Your task to perform on an android device: install app "Google Duo" Image 0: 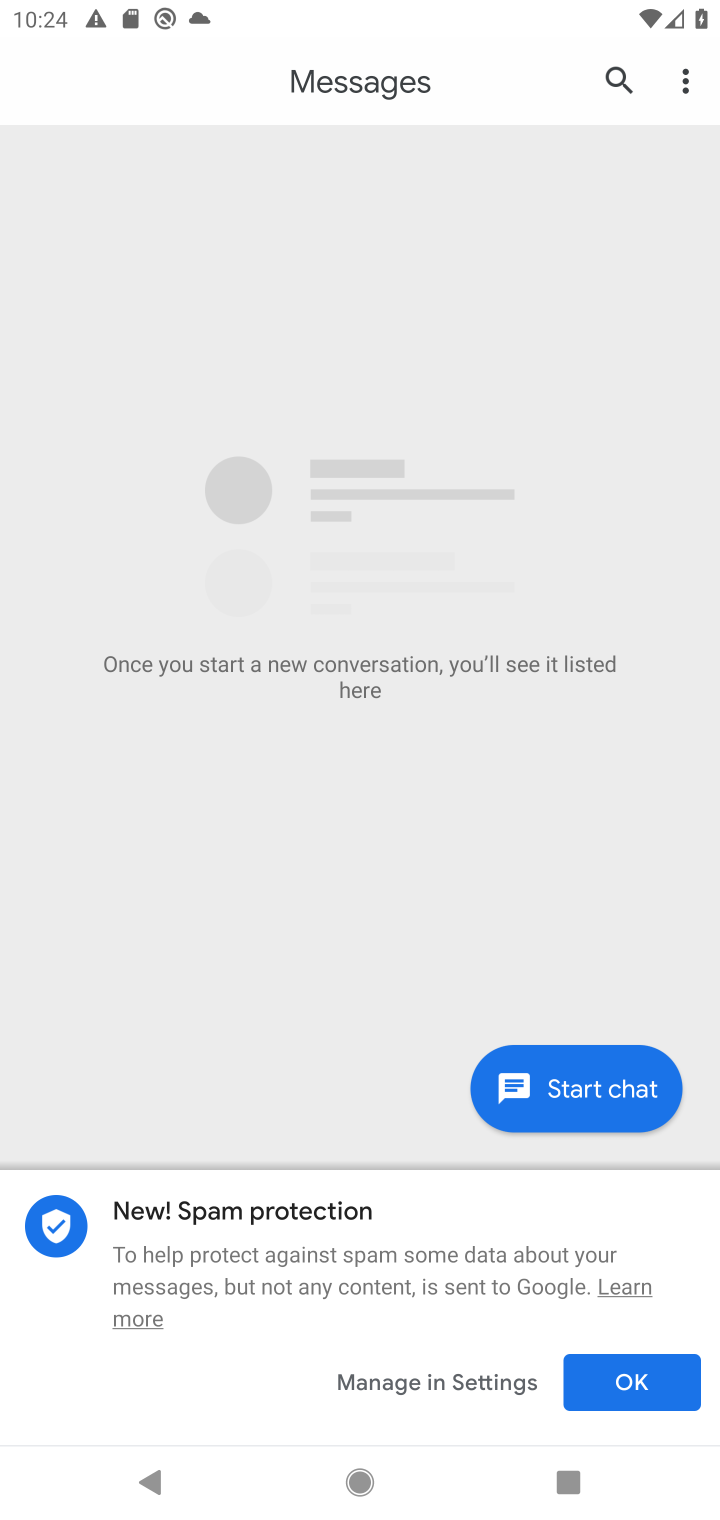
Step 0: press home button
Your task to perform on an android device: install app "Google Duo" Image 1: 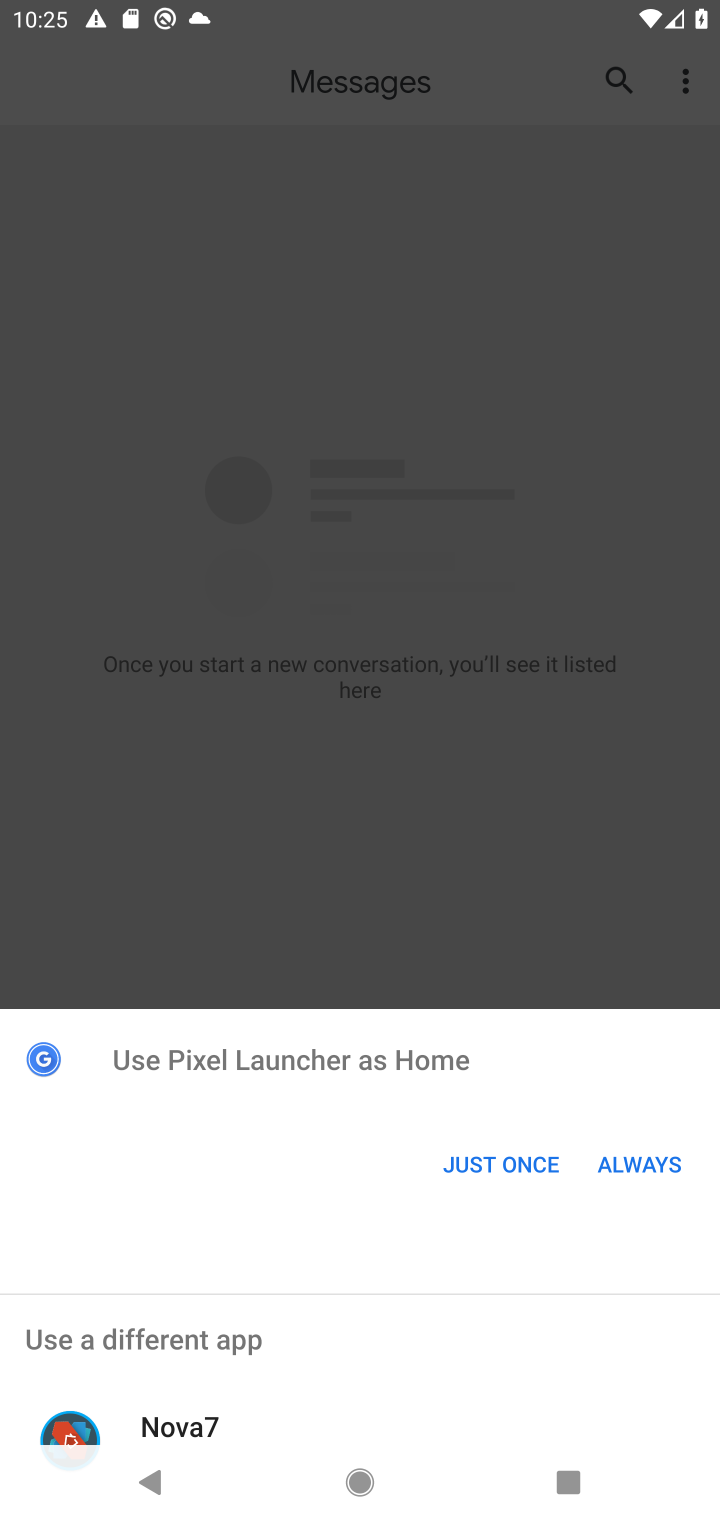
Step 1: press home button
Your task to perform on an android device: install app "Google Duo" Image 2: 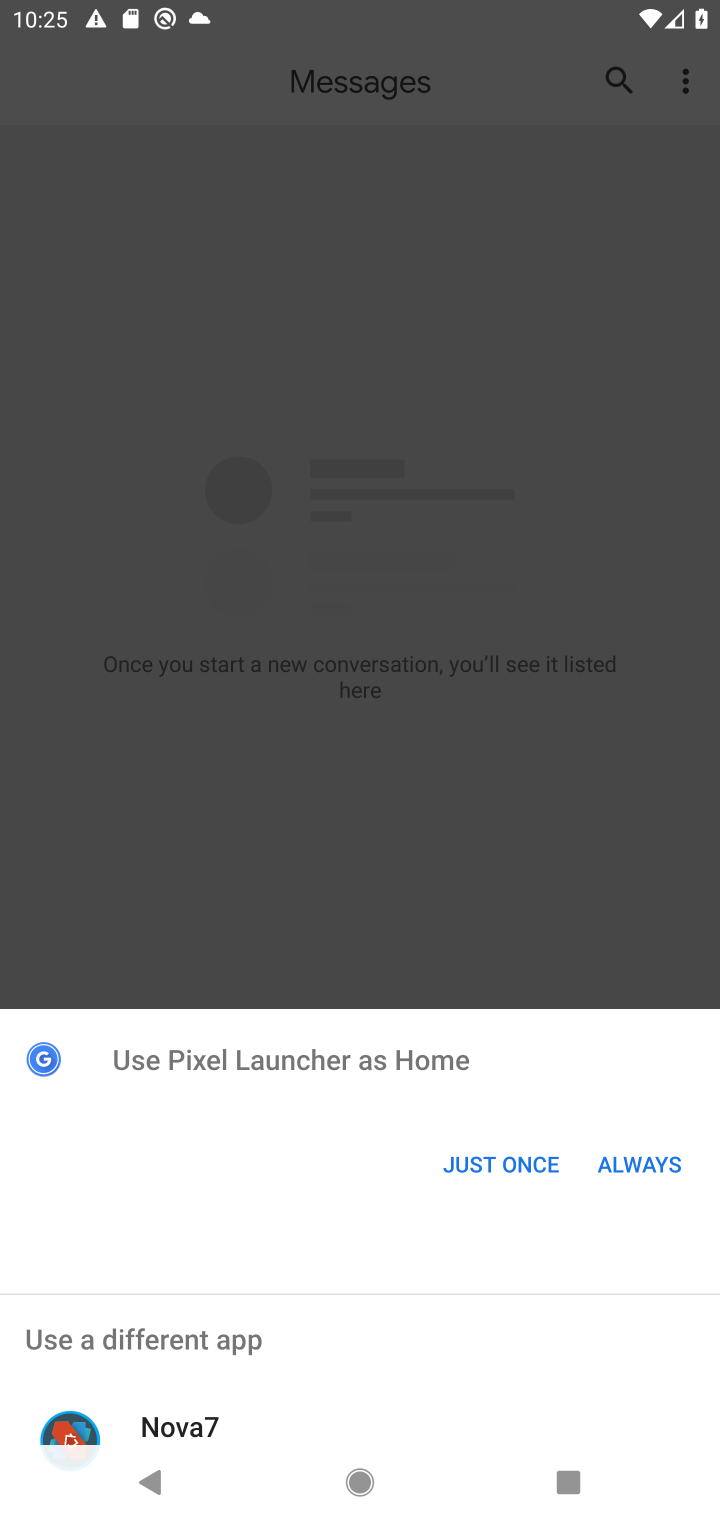
Step 2: click (499, 1156)
Your task to perform on an android device: install app "Google Duo" Image 3: 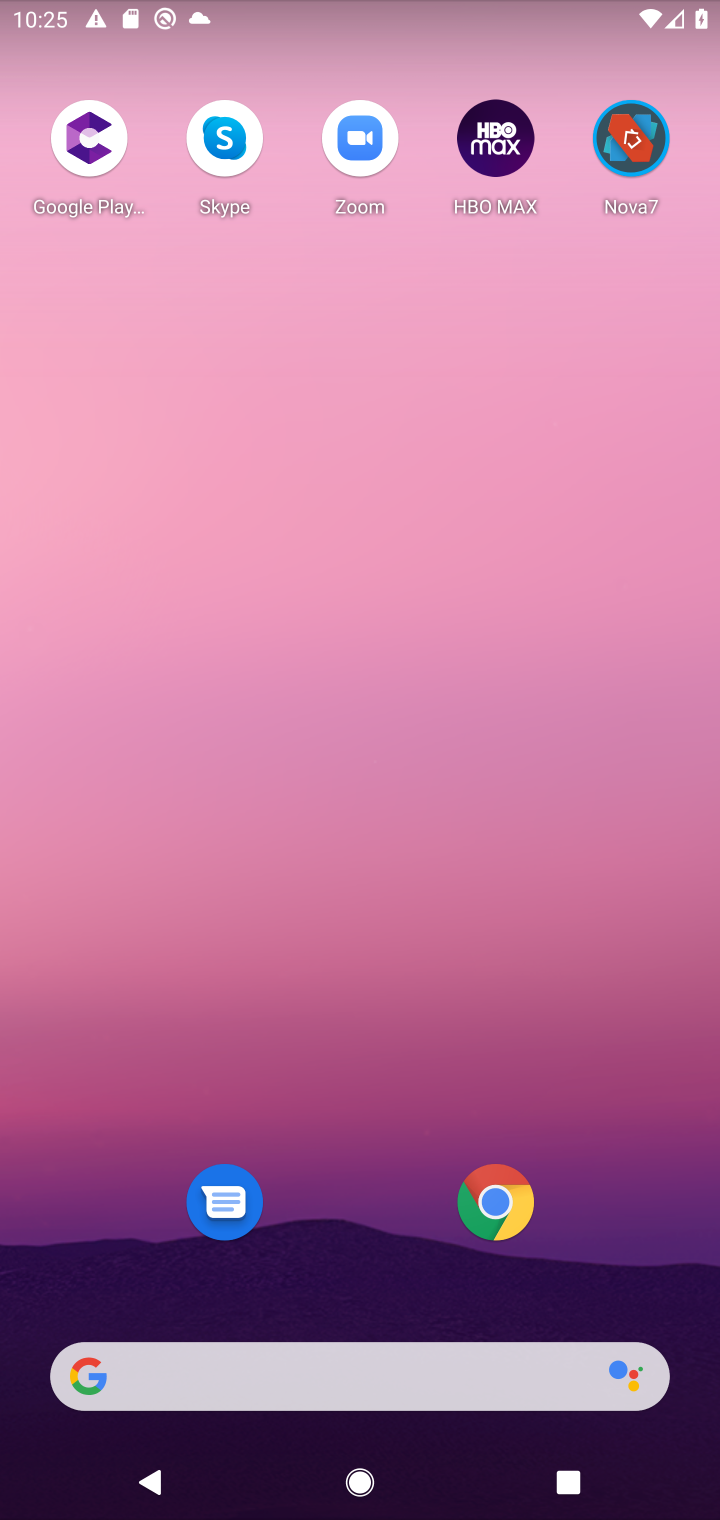
Step 3: click (358, 1367)
Your task to perform on an android device: install app "Google Duo" Image 4: 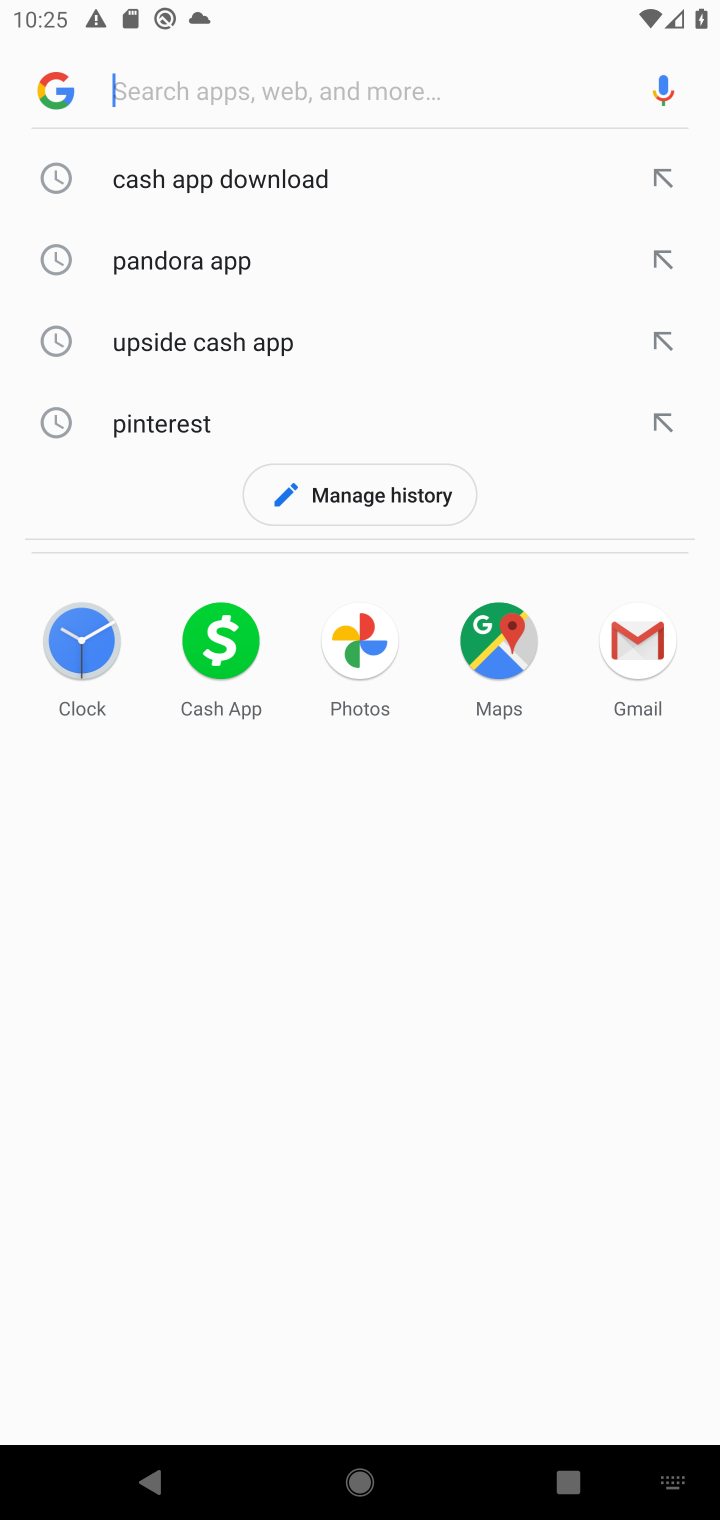
Step 4: type "google duo"
Your task to perform on an android device: install app "Google Duo" Image 5: 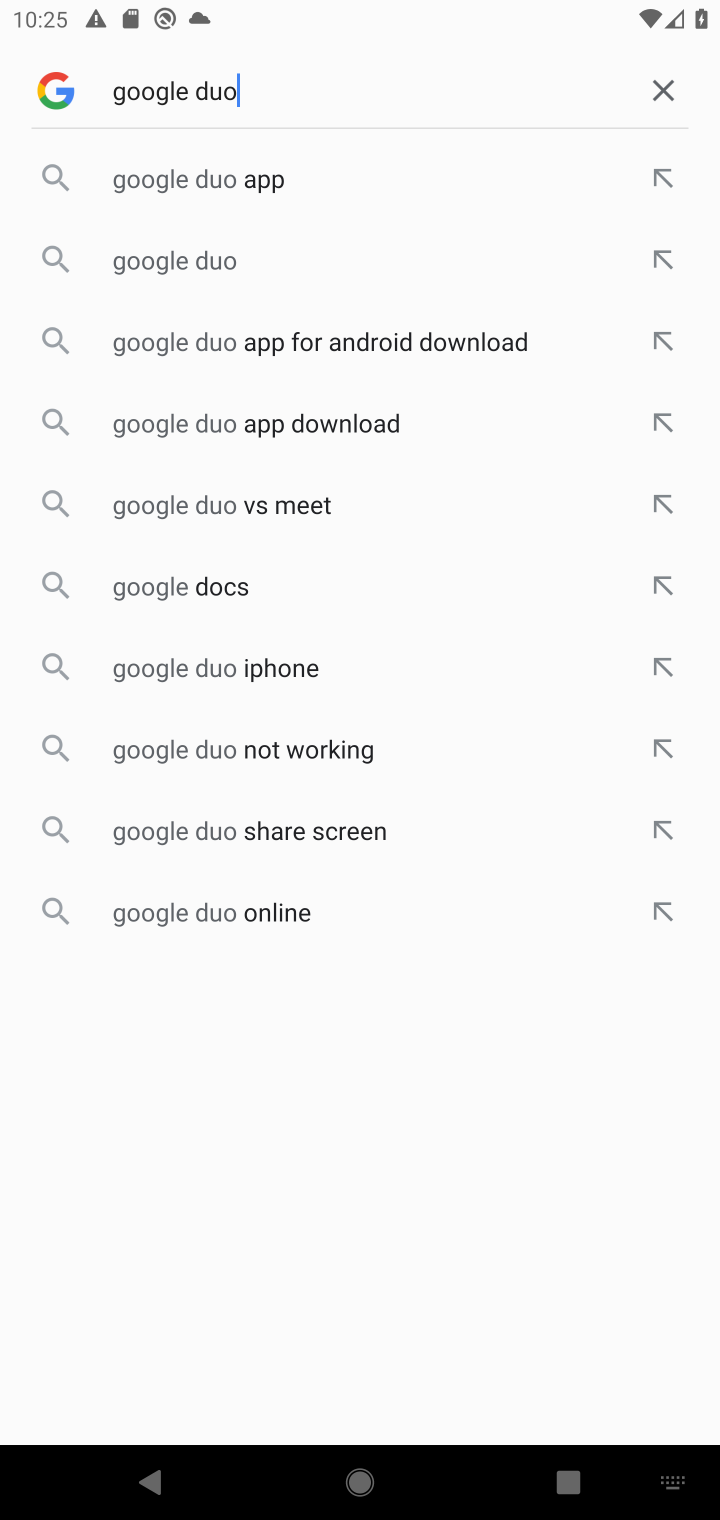
Step 5: click (387, 173)
Your task to perform on an android device: install app "Google Duo" Image 6: 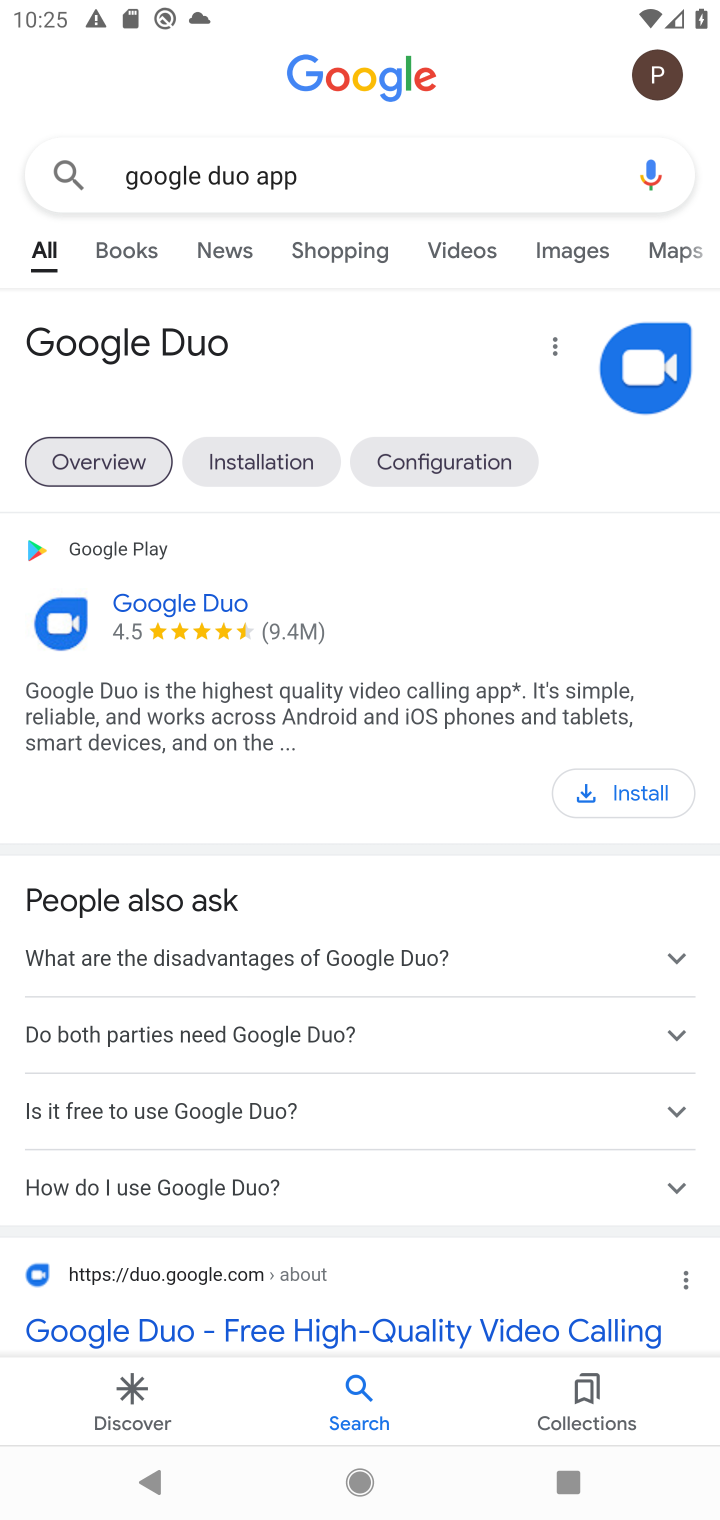
Step 6: click (586, 799)
Your task to perform on an android device: install app "Google Duo" Image 7: 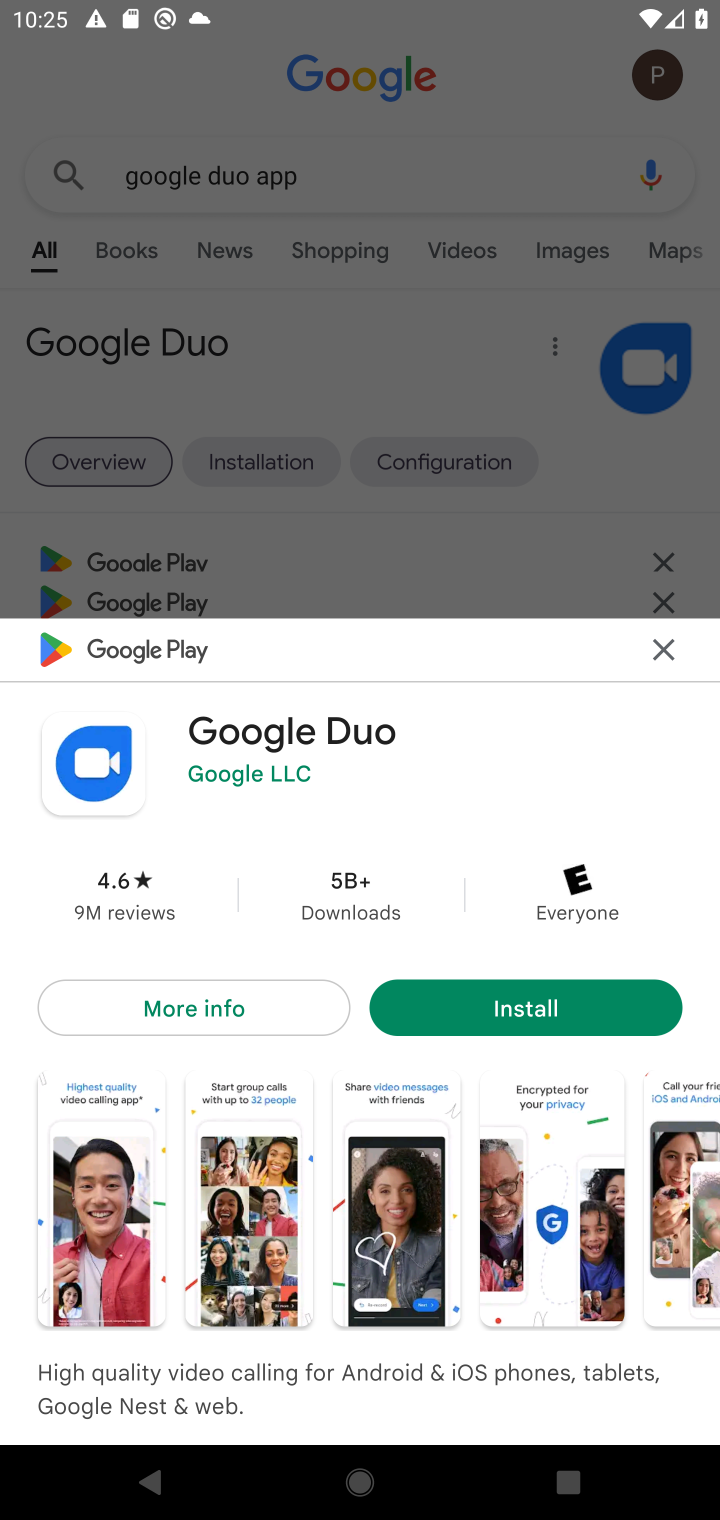
Step 7: click (527, 1011)
Your task to perform on an android device: install app "Google Duo" Image 8: 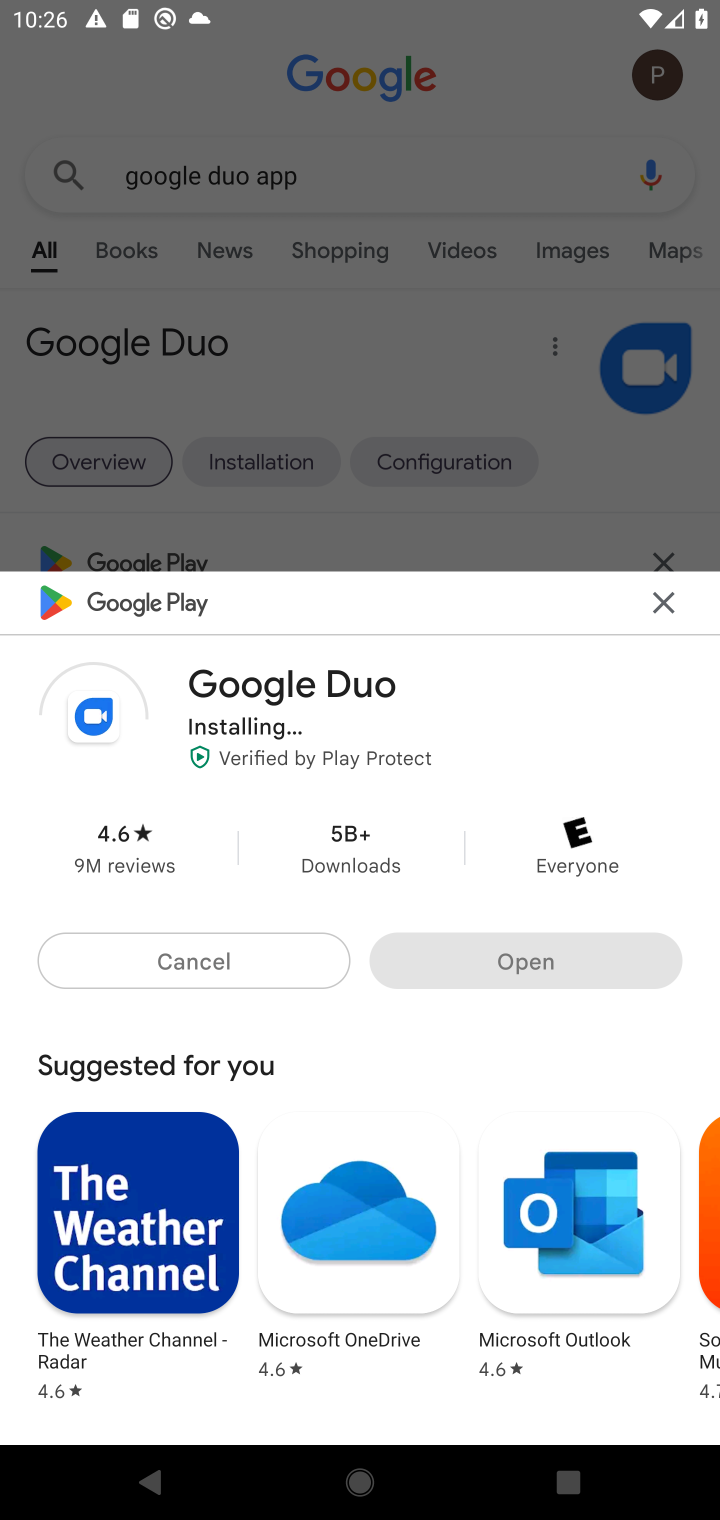
Step 8: task complete